Your task to perform on an android device: turn off notifications settings in the gmail app Image 0: 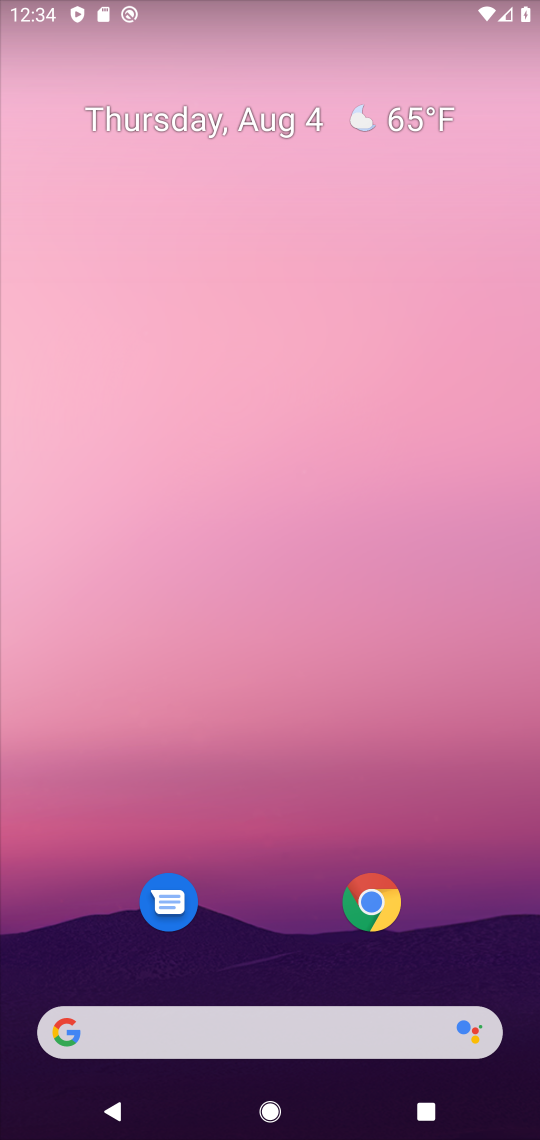
Step 0: drag from (505, 949) to (457, 244)
Your task to perform on an android device: turn off notifications settings in the gmail app Image 1: 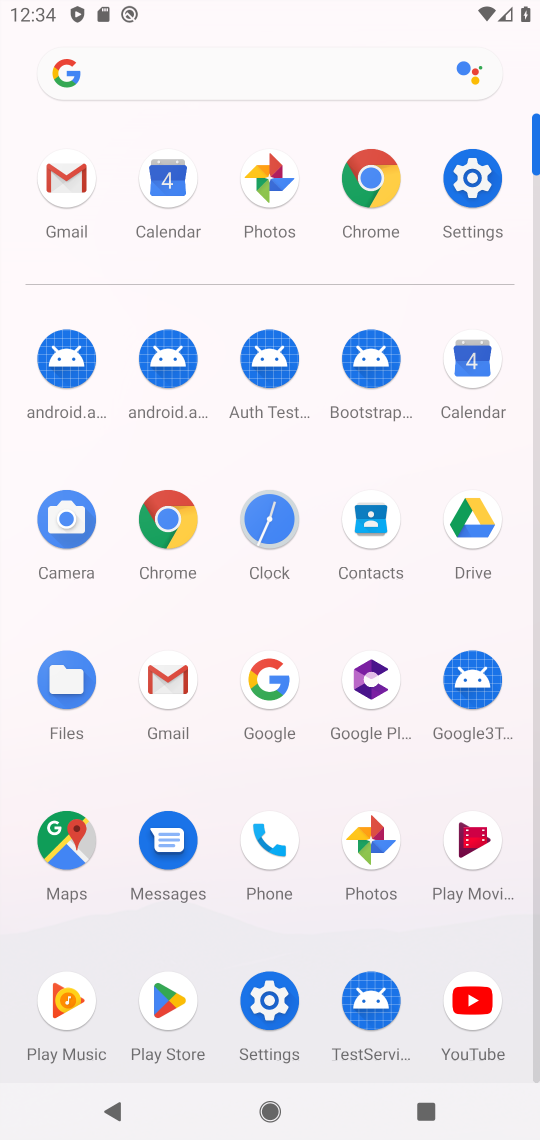
Step 1: click (171, 679)
Your task to perform on an android device: turn off notifications settings in the gmail app Image 2: 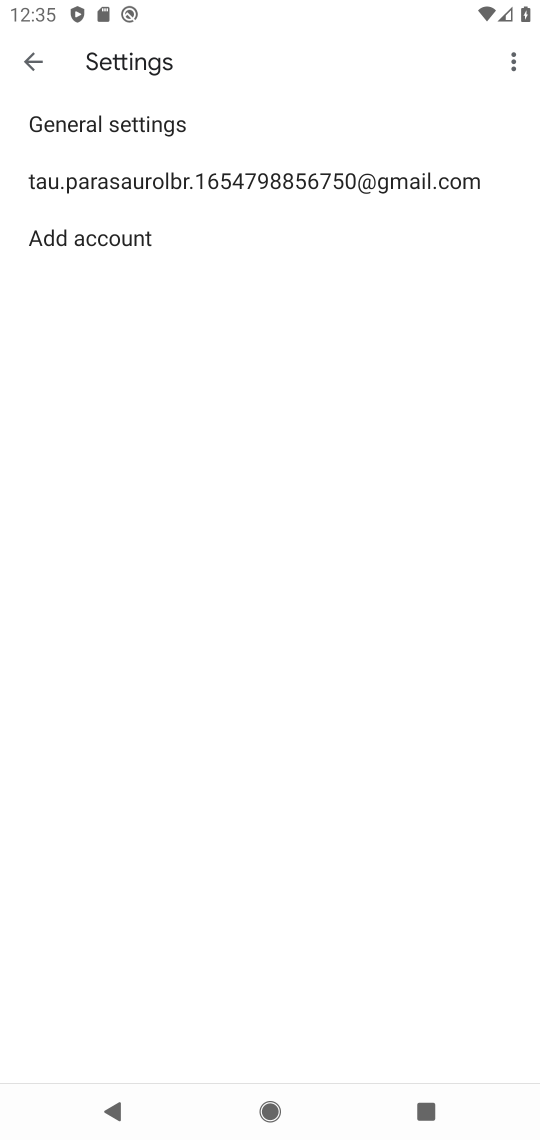
Step 2: click (159, 187)
Your task to perform on an android device: turn off notifications settings in the gmail app Image 3: 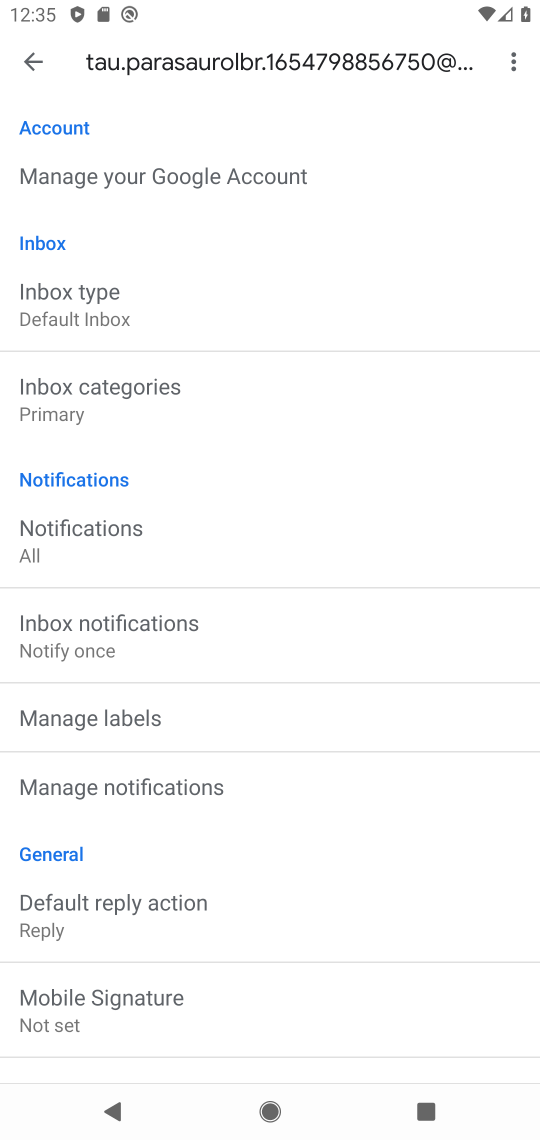
Step 3: click (139, 789)
Your task to perform on an android device: turn off notifications settings in the gmail app Image 4: 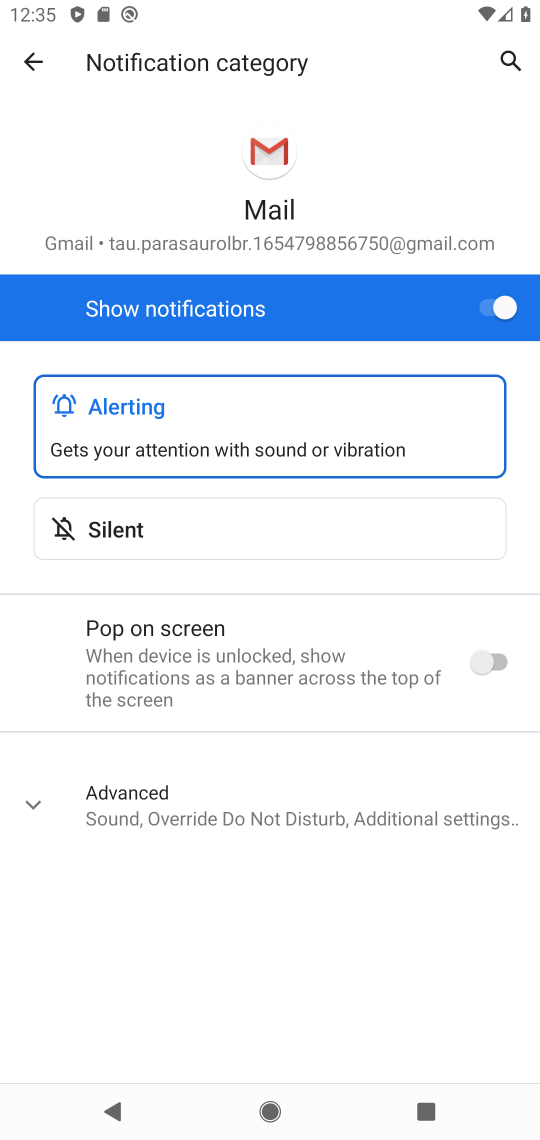
Step 4: click (491, 311)
Your task to perform on an android device: turn off notifications settings in the gmail app Image 5: 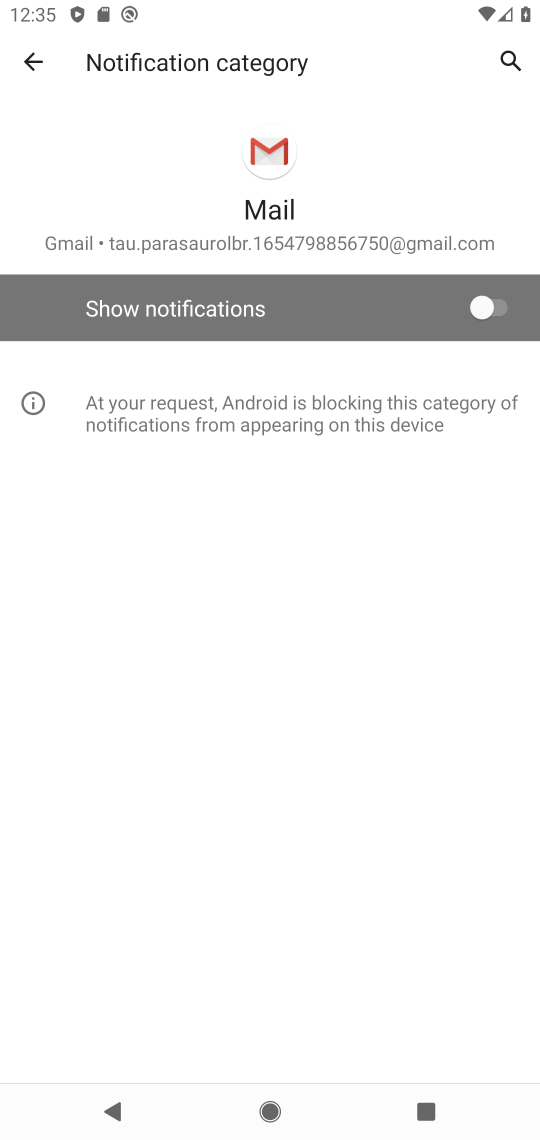
Step 5: task complete